Your task to perform on an android device: turn off notifications in google photos Image 0: 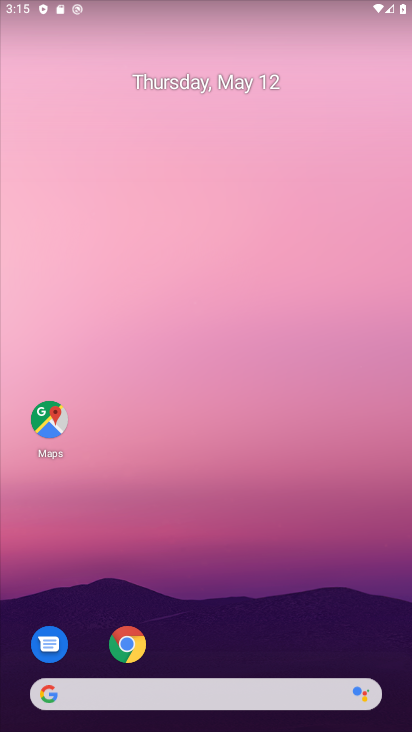
Step 0: drag from (258, 492) to (314, 227)
Your task to perform on an android device: turn off notifications in google photos Image 1: 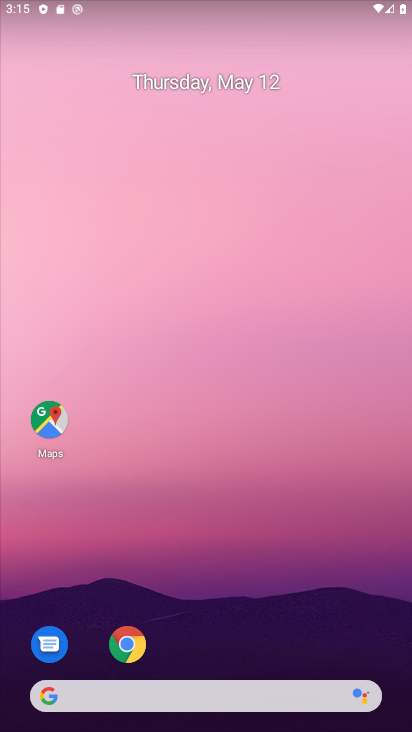
Step 1: drag from (263, 629) to (281, 176)
Your task to perform on an android device: turn off notifications in google photos Image 2: 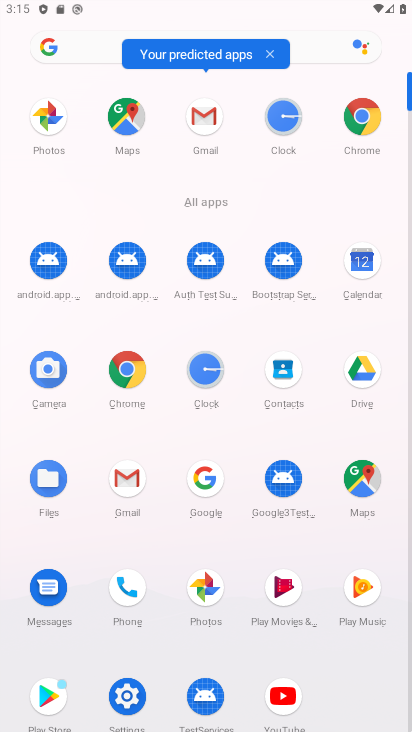
Step 2: click (206, 593)
Your task to perform on an android device: turn off notifications in google photos Image 3: 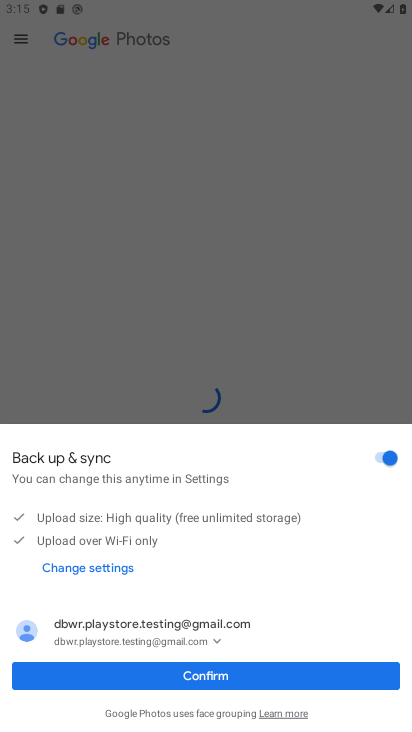
Step 3: click (195, 680)
Your task to perform on an android device: turn off notifications in google photos Image 4: 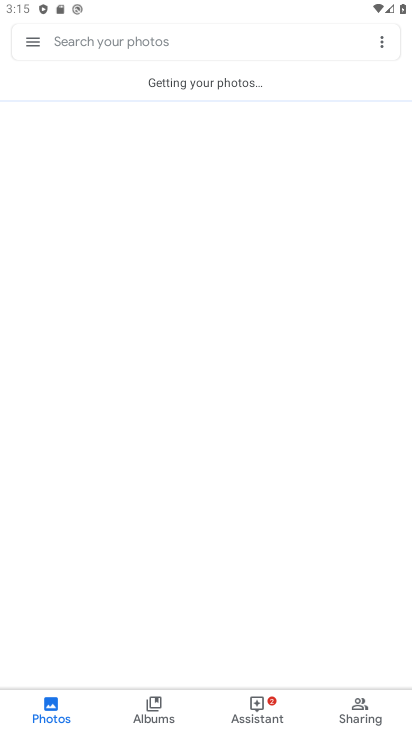
Step 4: click (36, 46)
Your task to perform on an android device: turn off notifications in google photos Image 5: 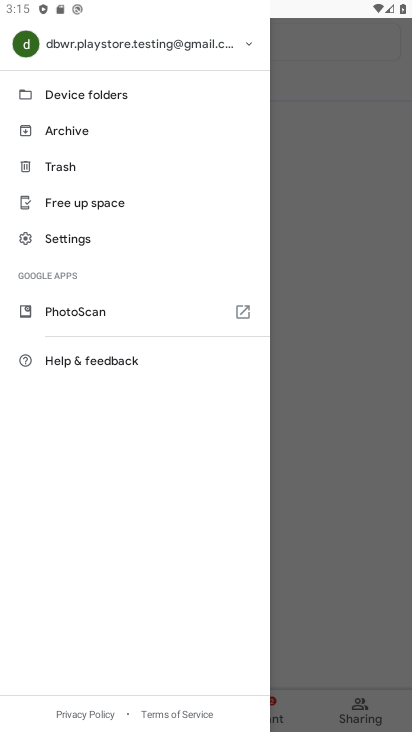
Step 5: click (85, 240)
Your task to perform on an android device: turn off notifications in google photos Image 6: 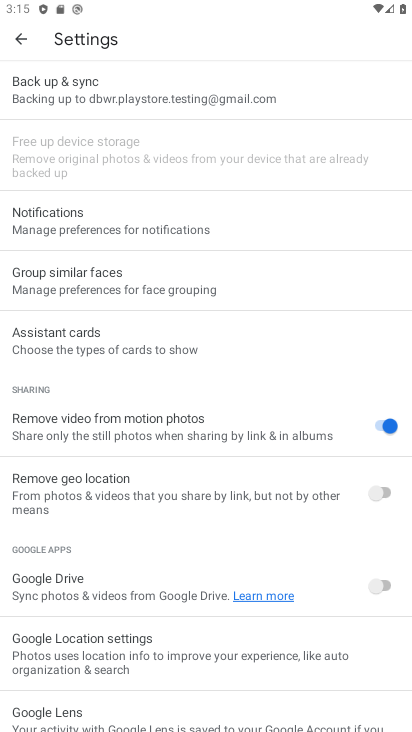
Step 6: click (93, 231)
Your task to perform on an android device: turn off notifications in google photos Image 7: 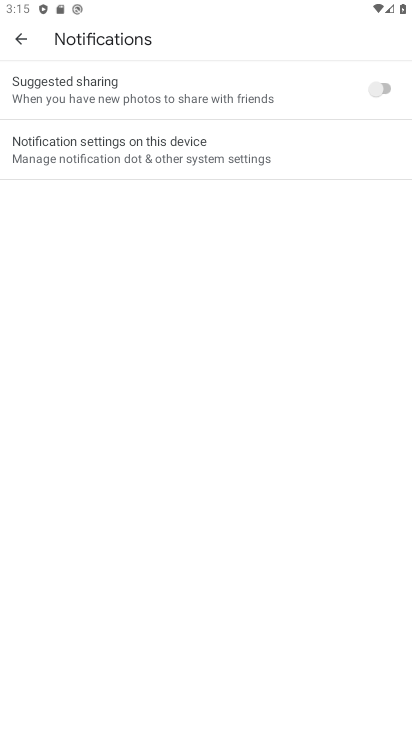
Step 7: click (119, 145)
Your task to perform on an android device: turn off notifications in google photos Image 8: 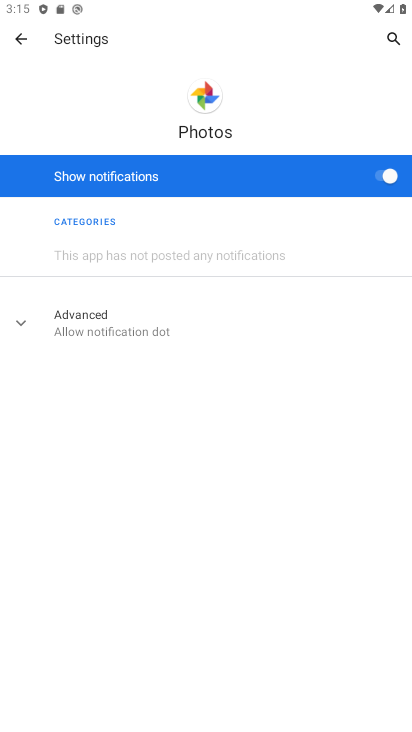
Step 8: click (377, 181)
Your task to perform on an android device: turn off notifications in google photos Image 9: 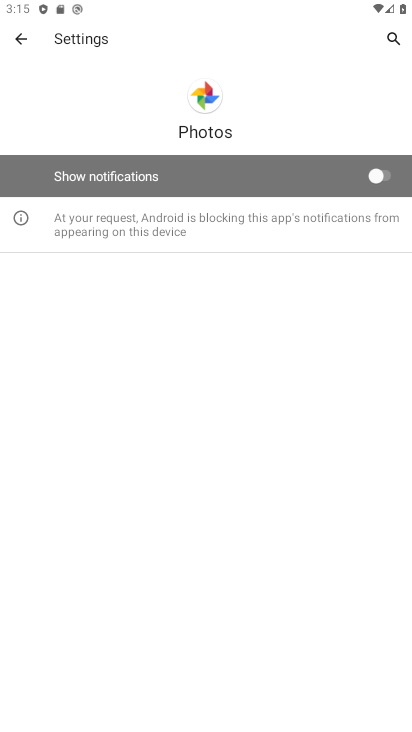
Step 9: task complete